Your task to perform on an android device: Open ESPN.com Image 0: 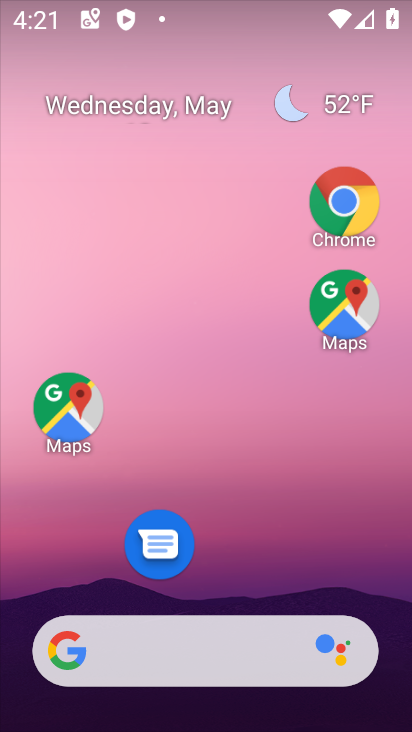
Step 0: click (160, 30)
Your task to perform on an android device: Open ESPN.com Image 1: 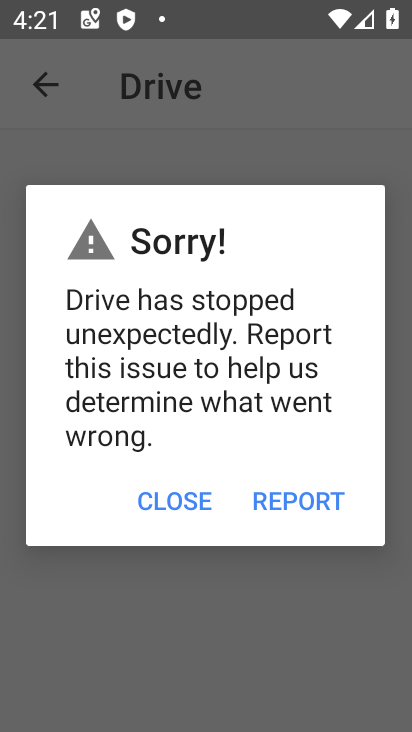
Step 1: press home button
Your task to perform on an android device: Open ESPN.com Image 2: 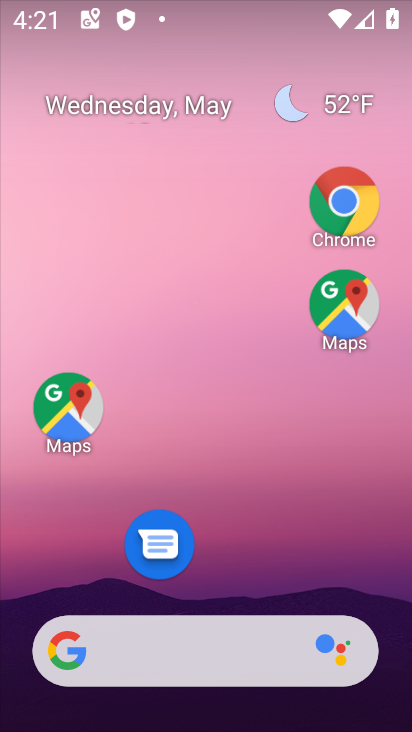
Step 2: drag from (219, 603) to (153, 130)
Your task to perform on an android device: Open ESPN.com Image 3: 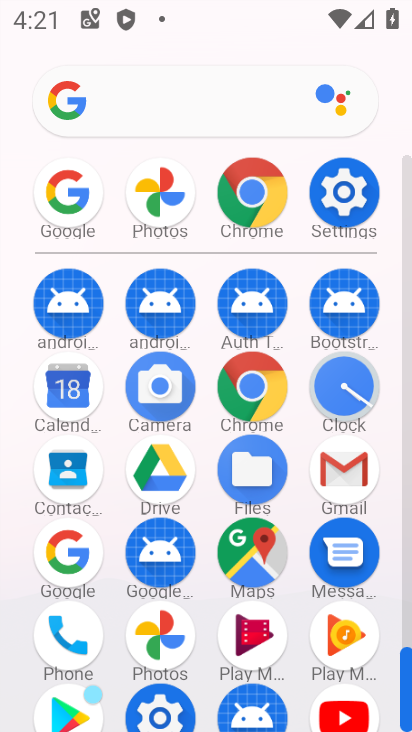
Step 3: click (330, 200)
Your task to perform on an android device: Open ESPN.com Image 4: 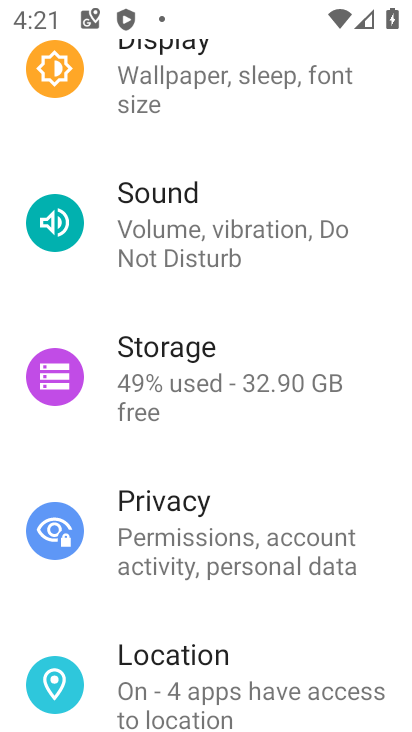
Step 4: drag from (179, 169) to (194, 650)
Your task to perform on an android device: Open ESPN.com Image 5: 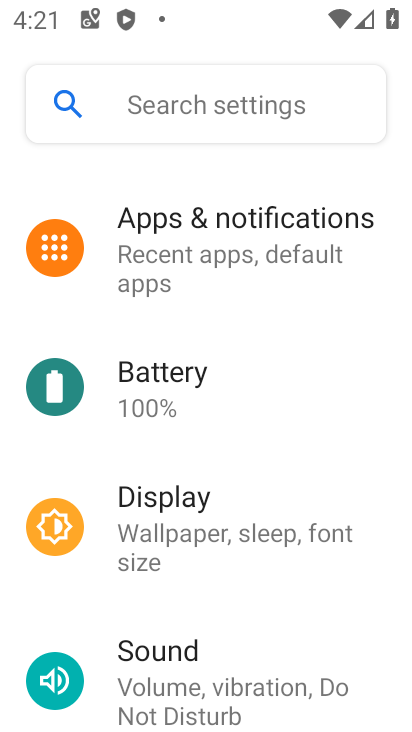
Step 5: press home button
Your task to perform on an android device: Open ESPN.com Image 6: 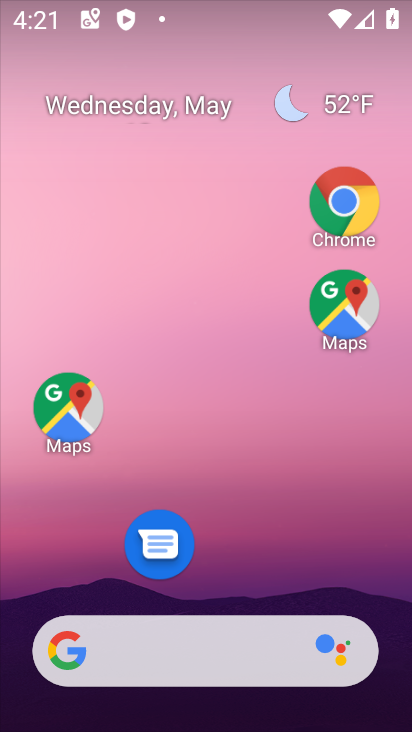
Step 6: click (363, 211)
Your task to perform on an android device: Open ESPN.com Image 7: 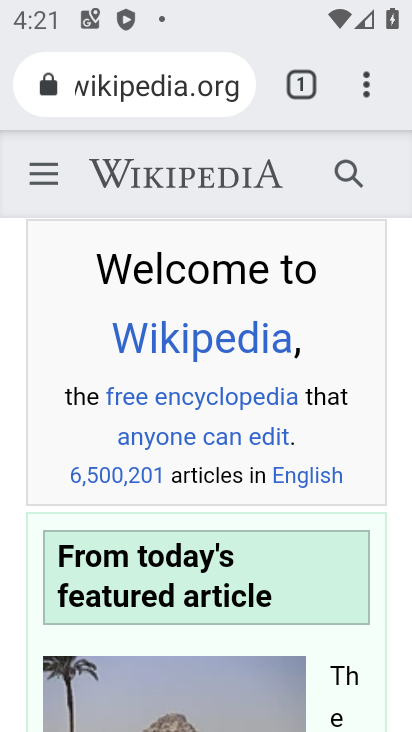
Step 7: press back button
Your task to perform on an android device: Open ESPN.com Image 8: 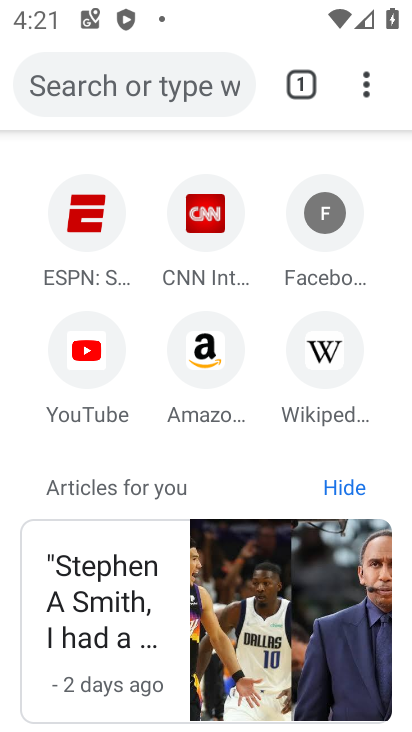
Step 8: click (81, 242)
Your task to perform on an android device: Open ESPN.com Image 9: 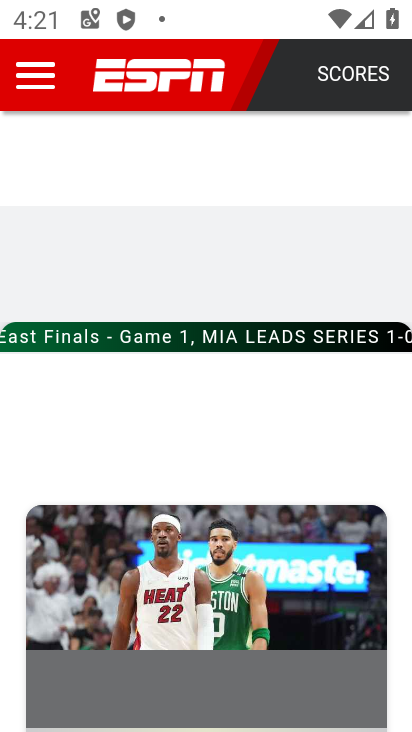
Step 9: task complete